Your task to perform on an android device: Check the news Image 0: 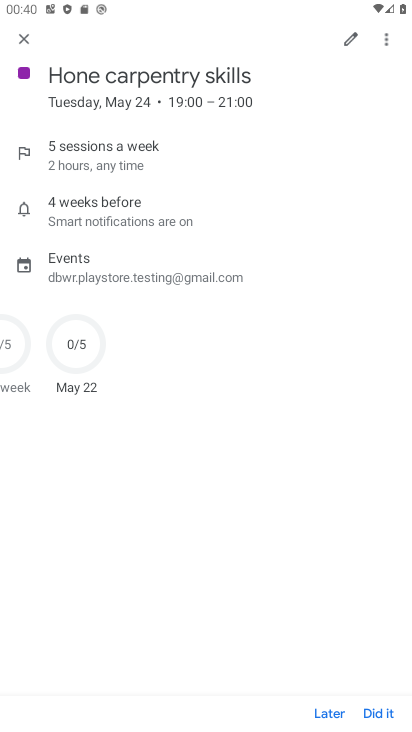
Step 0: press home button
Your task to perform on an android device: Check the news Image 1: 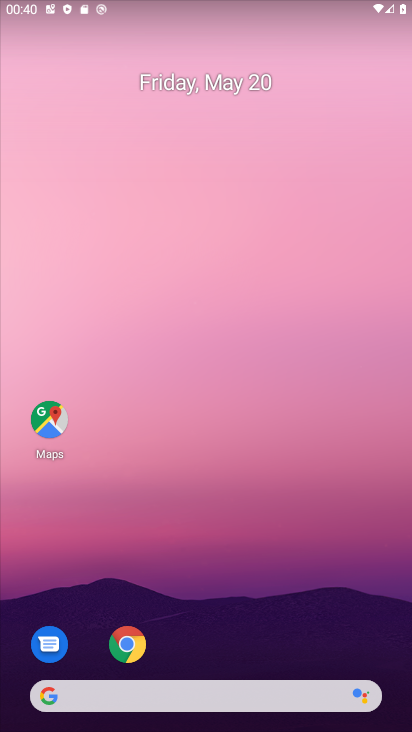
Step 1: click (133, 693)
Your task to perform on an android device: Check the news Image 2: 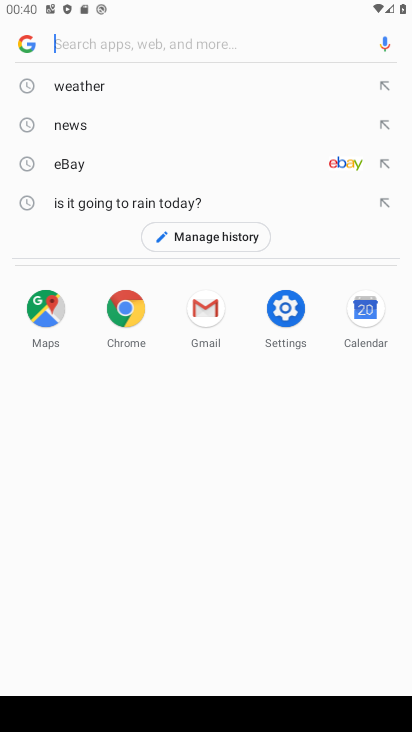
Step 2: click (88, 128)
Your task to perform on an android device: Check the news Image 3: 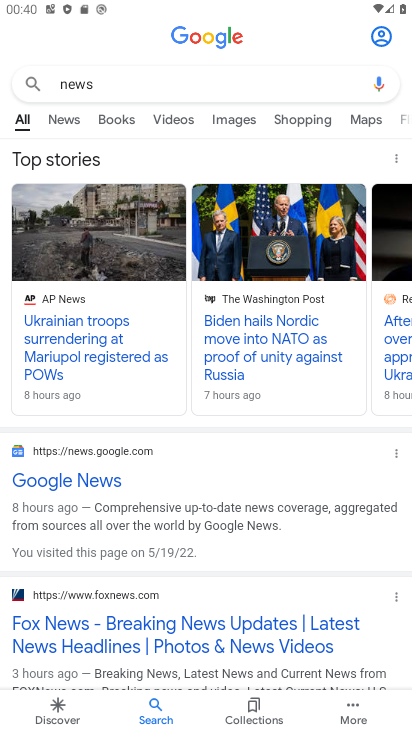
Step 3: click (47, 119)
Your task to perform on an android device: Check the news Image 4: 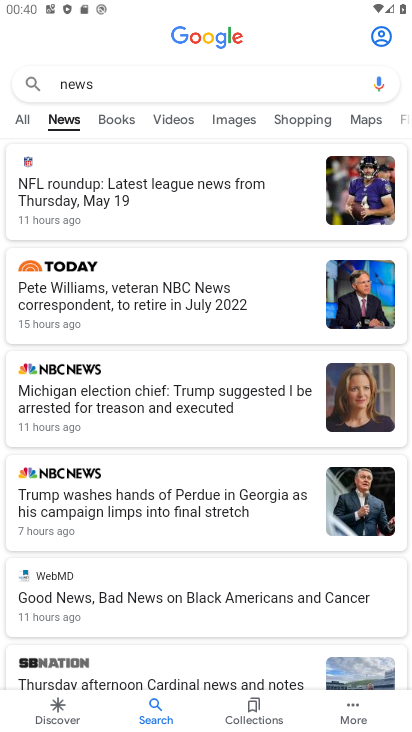
Step 4: task complete